Your task to perform on an android device: read, delete, or share a saved page in the chrome app Image 0: 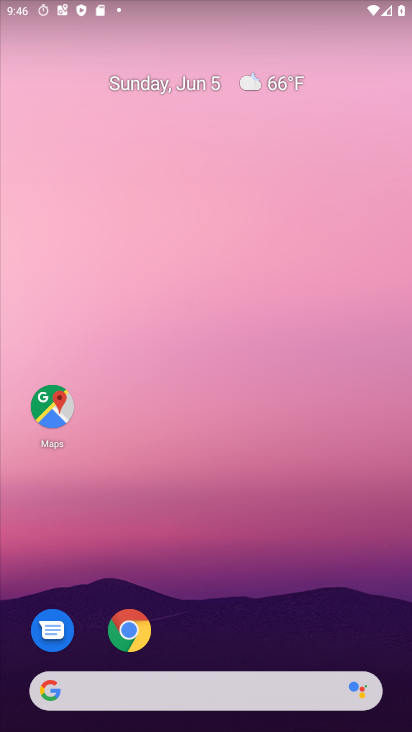
Step 0: drag from (243, 722) to (245, 26)
Your task to perform on an android device: read, delete, or share a saved page in the chrome app Image 1: 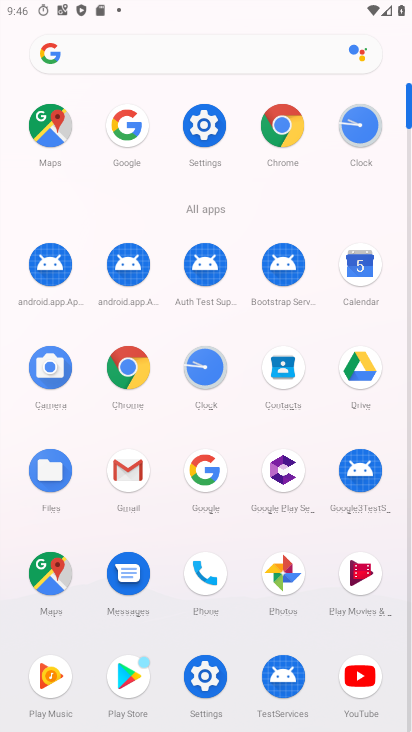
Step 1: click (284, 123)
Your task to perform on an android device: read, delete, or share a saved page in the chrome app Image 2: 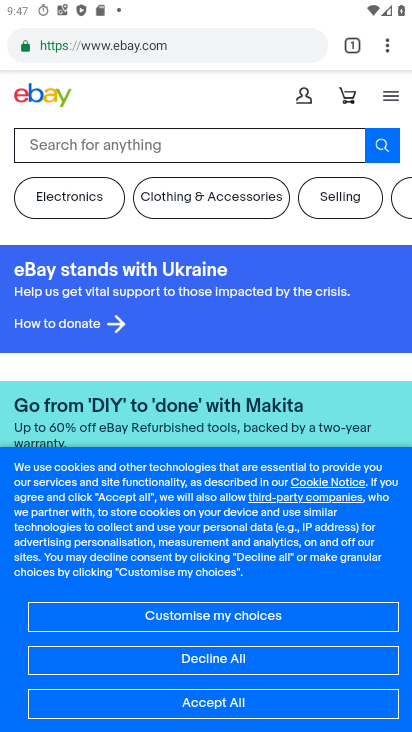
Step 2: click (385, 51)
Your task to perform on an android device: read, delete, or share a saved page in the chrome app Image 3: 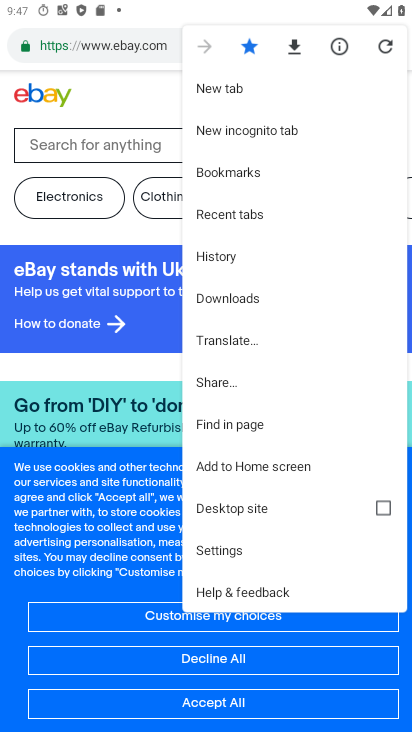
Step 3: click (223, 300)
Your task to perform on an android device: read, delete, or share a saved page in the chrome app Image 4: 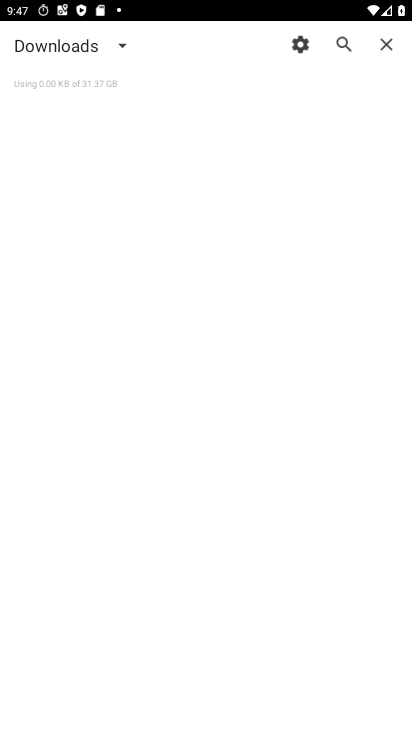
Step 4: click (120, 42)
Your task to perform on an android device: read, delete, or share a saved page in the chrome app Image 5: 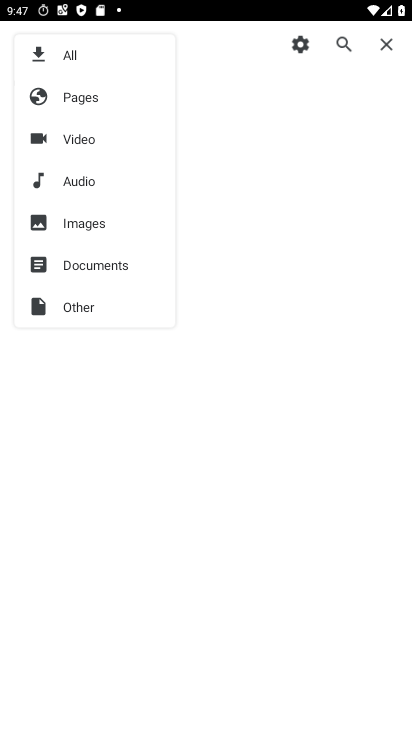
Step 5: click (79, 99)
Your task to perform on an android device: read, delete, or share a saved page in the chrome app Image 6: 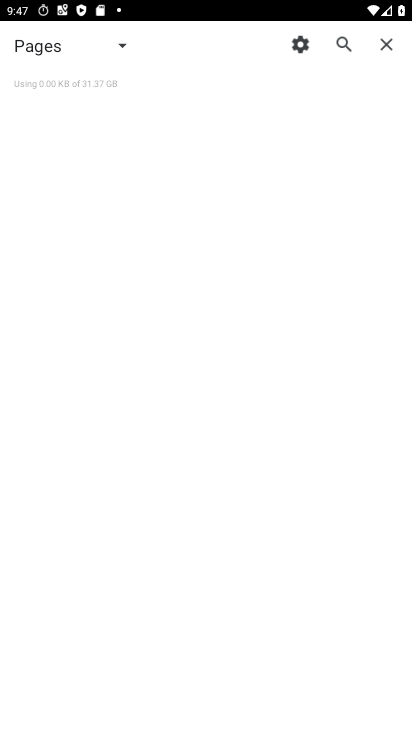
Step 6: task complete